Your task to perform on an android device: Open Google Image 0: 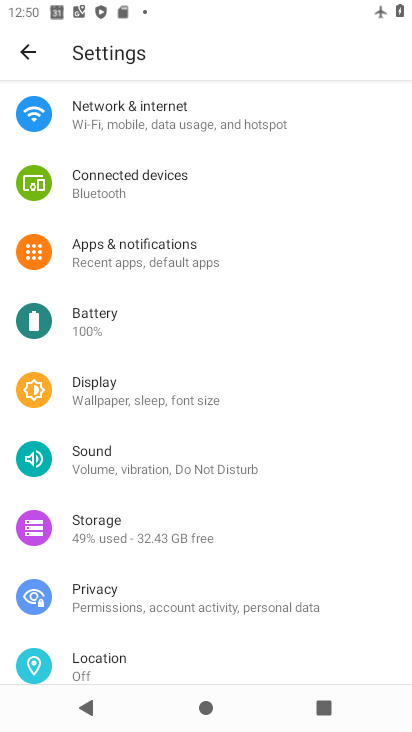
Step 0: press home button
Your task to perform on an android device: Open Google Image 1: 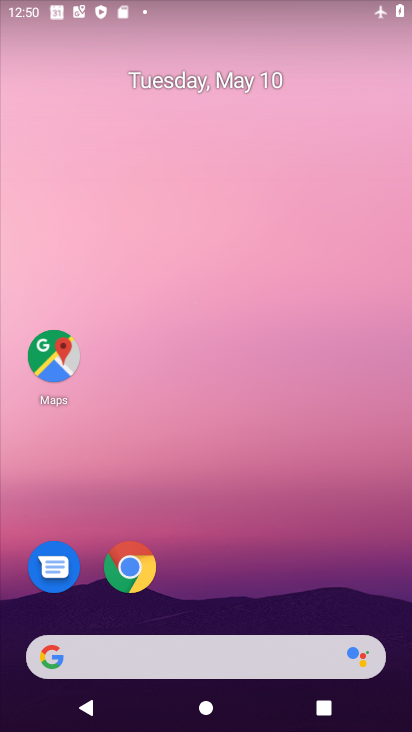
Step 1: drag from (357, 596) to (298, 85)
Your task to perform on an android device: Open Google Image 2: 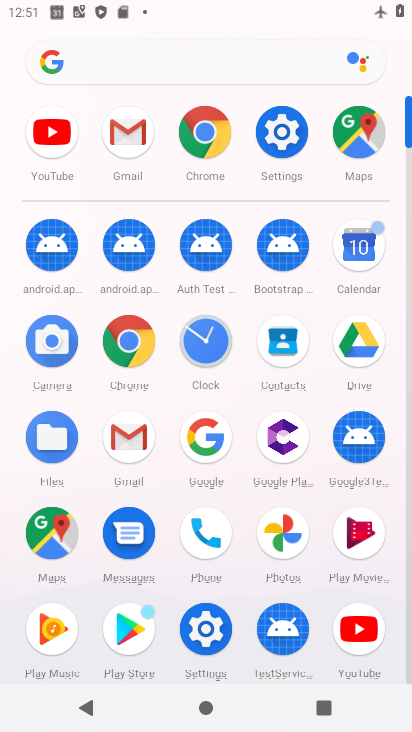
Step 2: click (201, 453)
Your task to perform on an android device: Open Google Image 3: 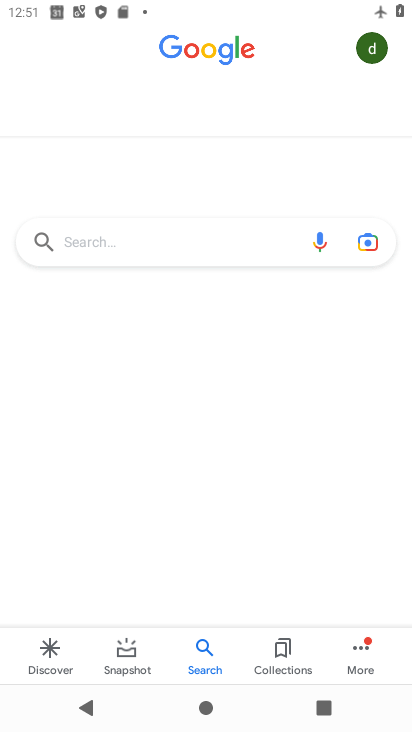
Step 3: task complete